Your task to perform on an android device: Go to ESPN.com Image 0: 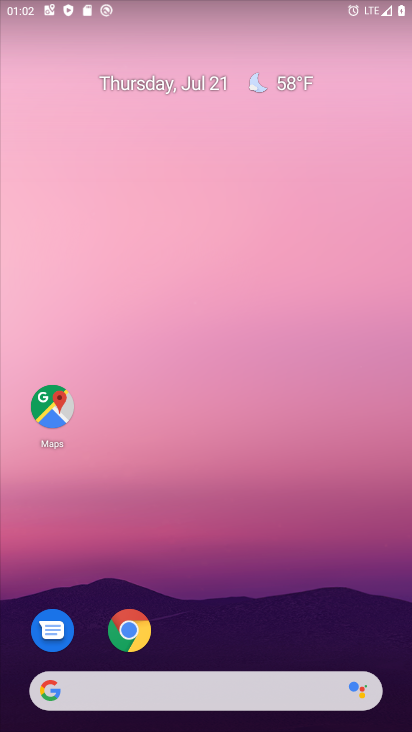
Step 0: click (139, 649)
Your task to perform on an android device: Go to ESPN.com Image 1: 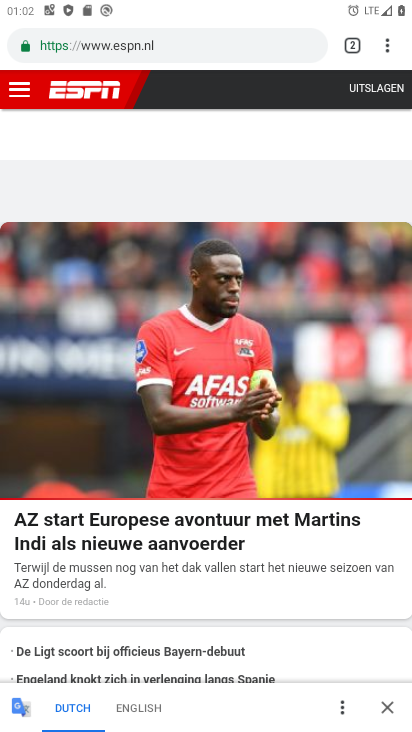
Step 1: task complete